Your task to perform on an android device: Do I have any events tomorrow? Image 0: 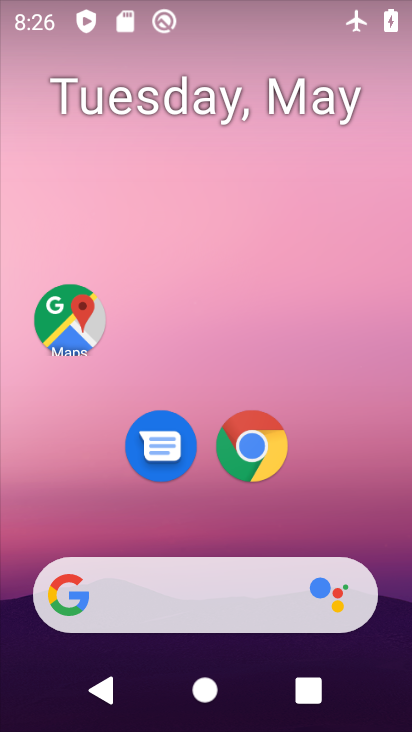
Step 0: drag from (382, 544) to (399, 199)
Your task to perform on an android device: Do I have any events tomorrow? Image 1: 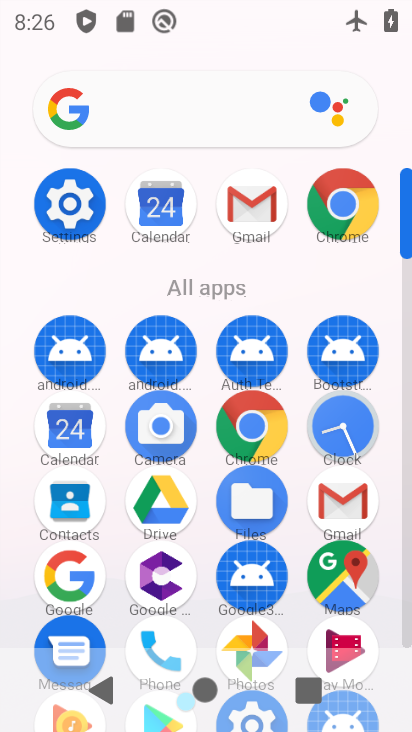
Step 1: drag from (391, 661) to (397, 469)
Your task to perform on an android device: Do I have any events tomorrow? Image 2: 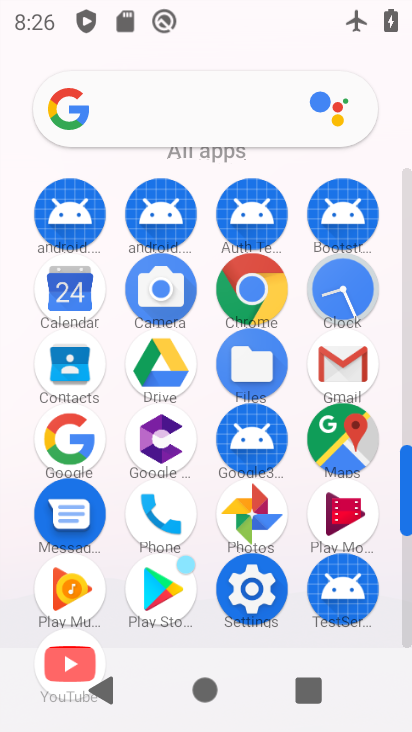
Step 2: click (65, 290)
Your task to perform on an android device: Do I have any events tomorrow? Image 3: 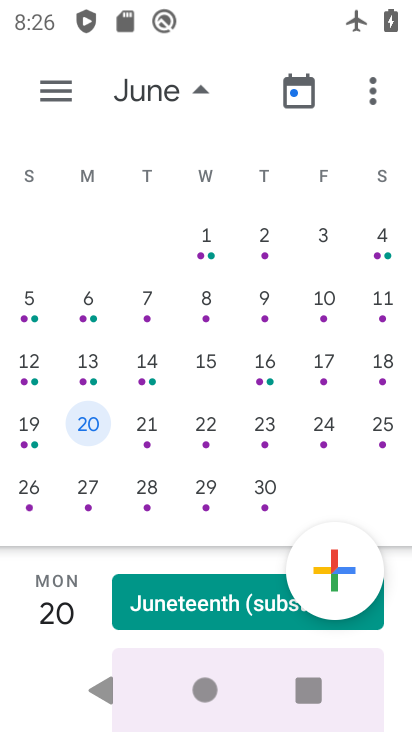
Step 3: click (27, 200)
Your task to perform on an android device: Do I have any events tomorrow? Image 4: 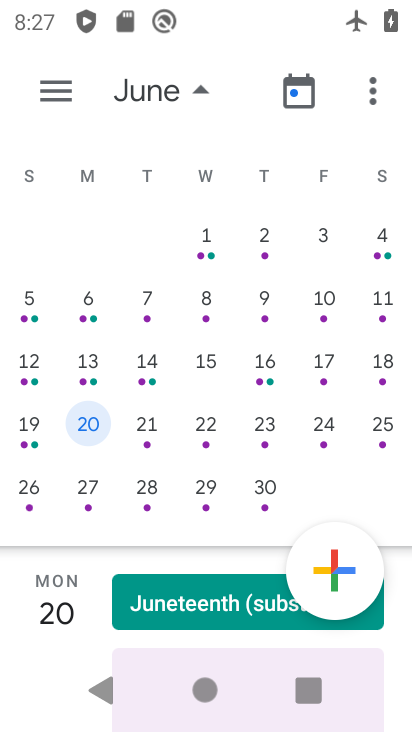
Step 4: drag from (65, 199) to (409, 222)
Your task to perform on an android device: Do I have any events tomorrow? Image 5: 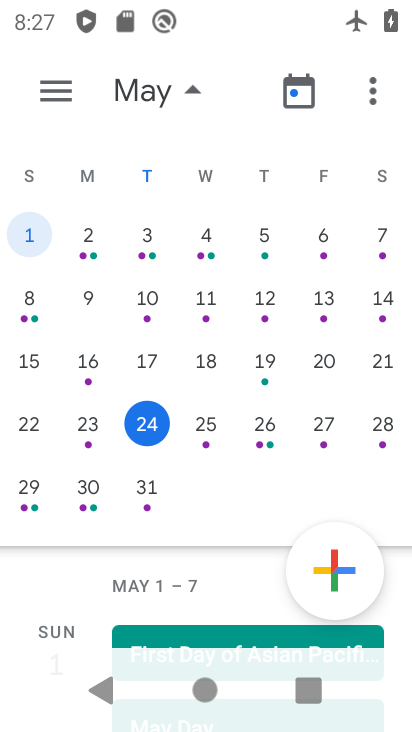
Step 5: click (265, 419)
Your task to perform on an android device: Do I have any events tomorrow? Image 6: 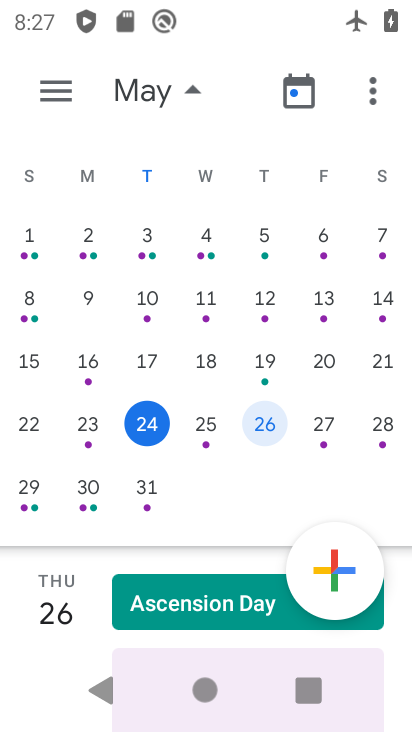
Step 6: drag from (248, 553) to (254, 240)
Your task to perform on an android device: Do I have any events tomorrow? Image 7: 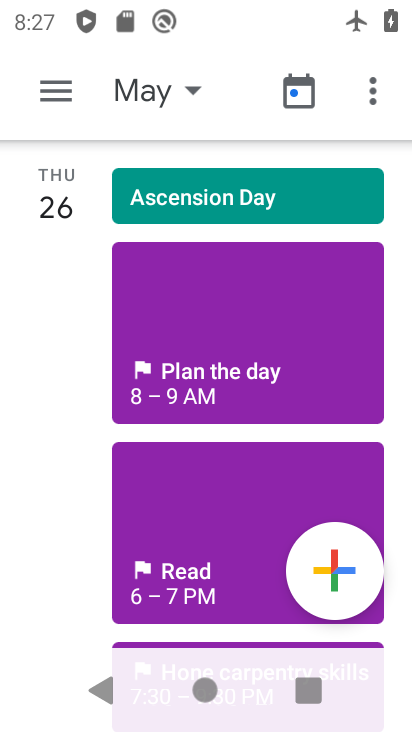
Step 7: click (245, 344)
Your task to perform on an android device: Do I have any events tomorrow? Image 8: 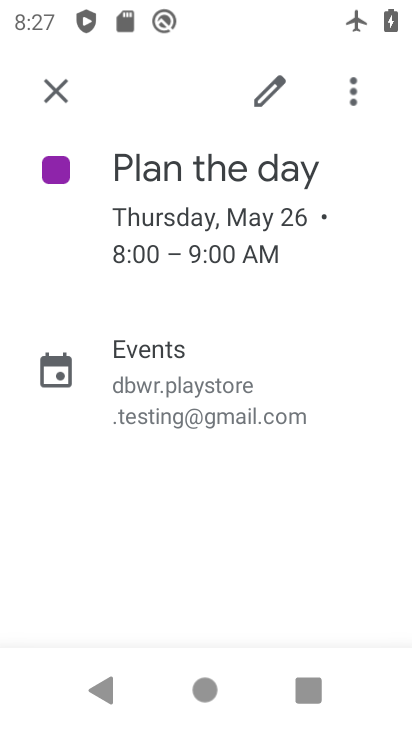
Step 8: task complete